Your task to perform on an android device: Install the Uber app Image 0: 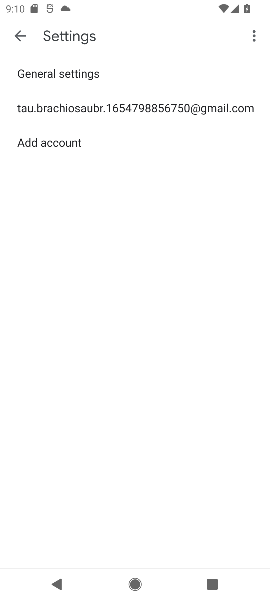
Step 0: press home button
Your task to perform on an android device: Install the Uber app Image 1: 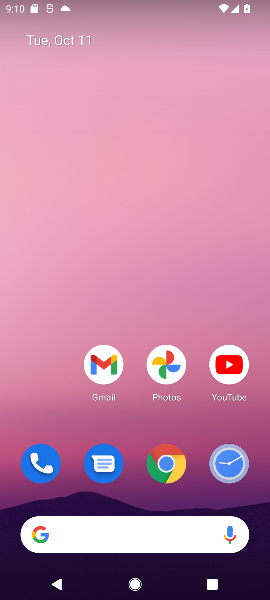
Step 1: drag from (122, 539) to (122, 196)
Your task to perform on an android device: Install the Uber app Image 2: 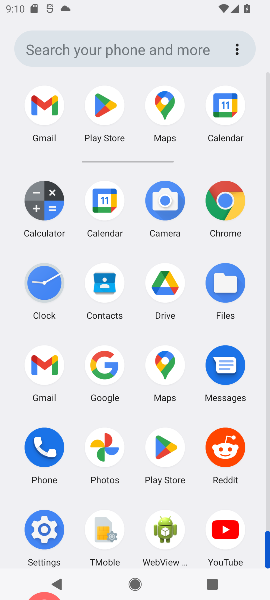
Step 2: click (100, 95)
Your task to perform on an android device: Install the Uber app Image 3: 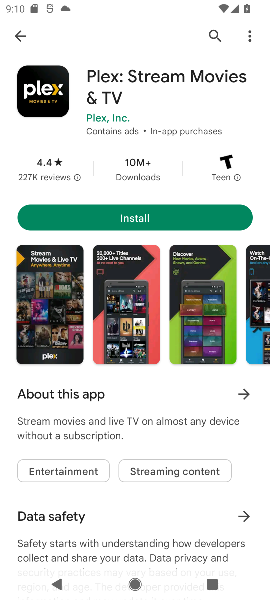
Step 3: click (12, 30)
Your task to perform on an android device: Install the Uber app Image 4: 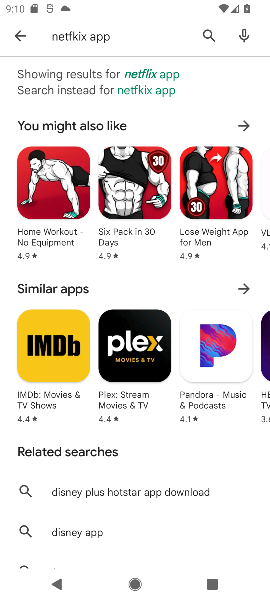
Step 4: click (14, 35)
Your task to perform on an android device: Install the Uber app Image 5: 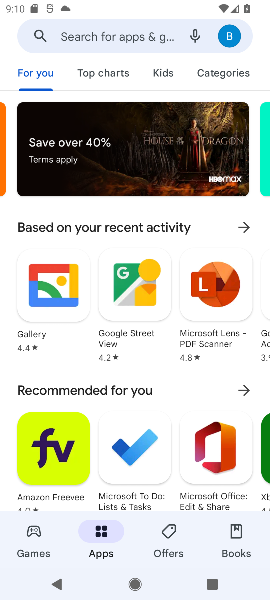
Step 5: click (128, 33)
Your task to perform on an android device: Install the Uber app Image 6: 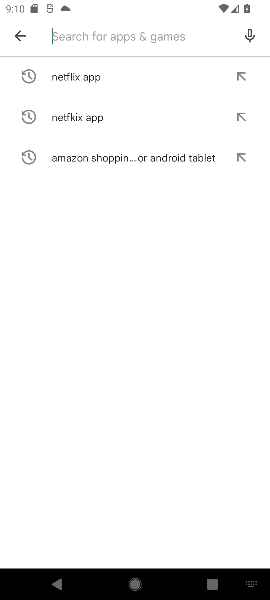
Step 6: click (129, 28)
Your task to perform on an android device: Install the Uber app Image 7: 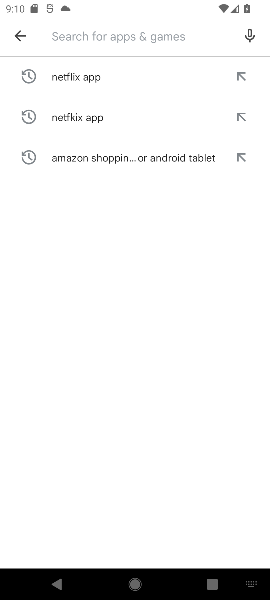
Step 7: type " Uber app "
Your task to perform on an android device: Install the Uber app Image 8: 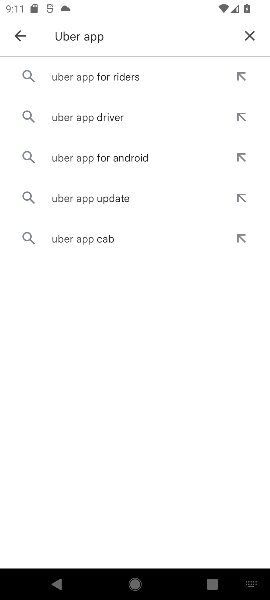
Step 8: click (146, 77)
Your task to perform on an android device: Install the Uber app Image 9: 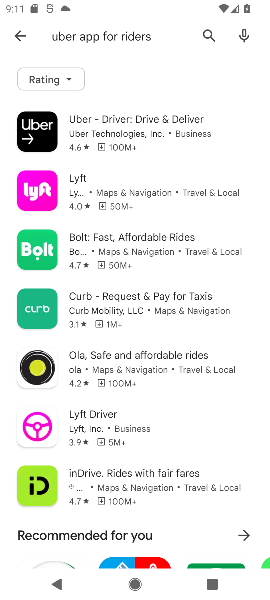
Step 9: click (116, 128)
Your task to perform on an android device: Install the Uber app Image 10: 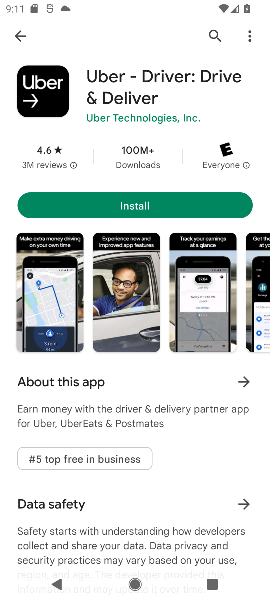
Step 10: click (135, 204)
Your task to perform on an android device: Install the Uber app Image 11: 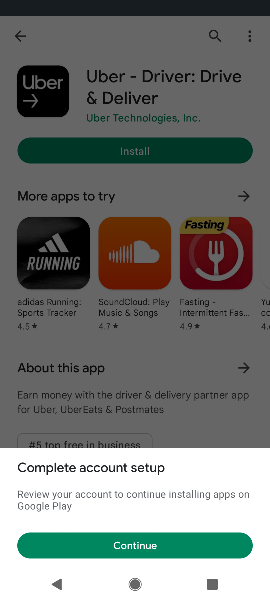
Step 11: click (141, 545)
Your task to perform on an android device: Install the Uber app Image 12: 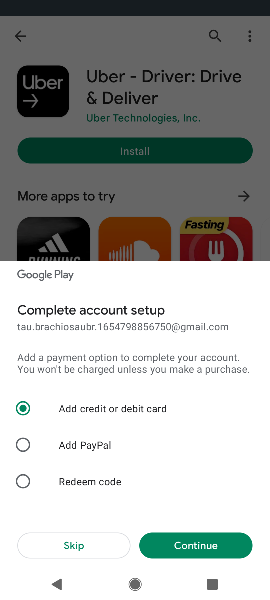
Step 12: task complete